Your task to perform on an android device: What's the weather today? Image 0: 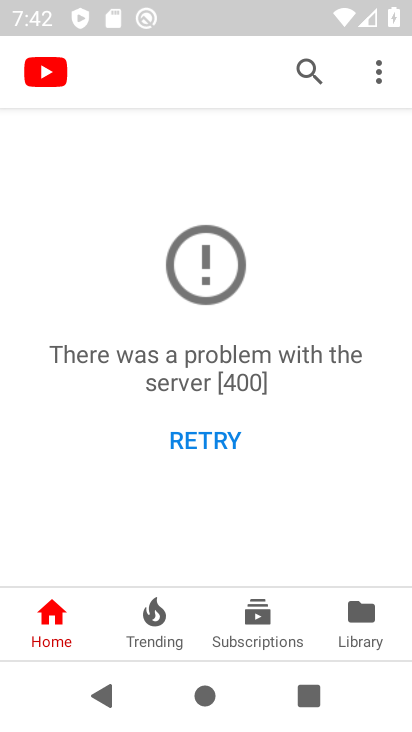
Step 0: drag from (251, 465) to (186, 104)
Your task to perform on an android device: What's the weather today? Image 1: 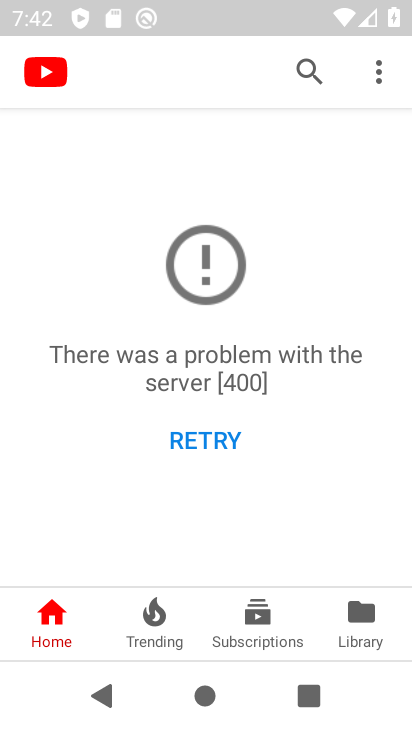
Step 1: press back button
Your task to perform on an android device: What's the weather today? Image 2: 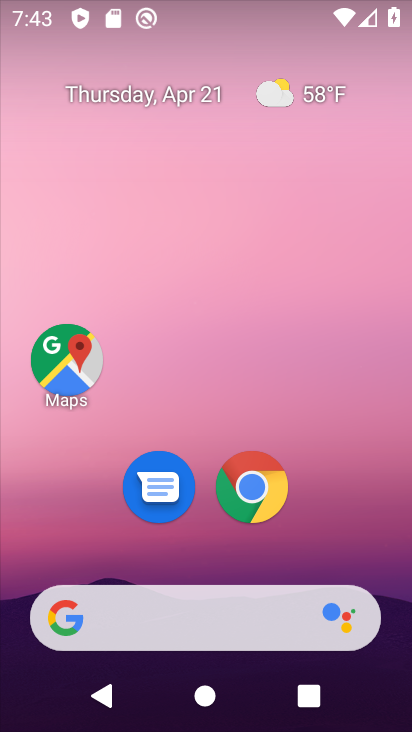
Step 2: drag from (361, 500) to (151, 17)
Your task to perform on an android device: What's the weather today? Image 3: 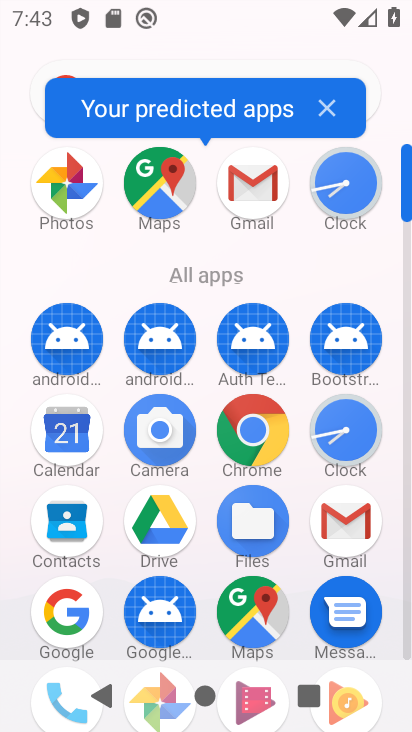
Step 3: click (328, 108)
Your task to perform on an android device: What's the weather today? Image 4: 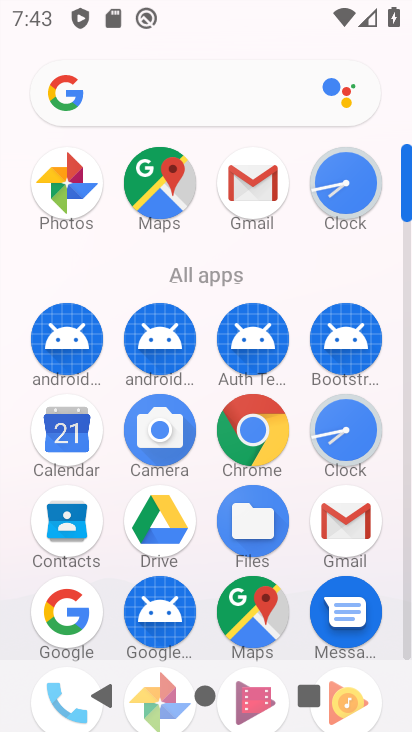
Step 4: click (169, 87)
Your task to perform on an android device: What's the weather today? Image 5: 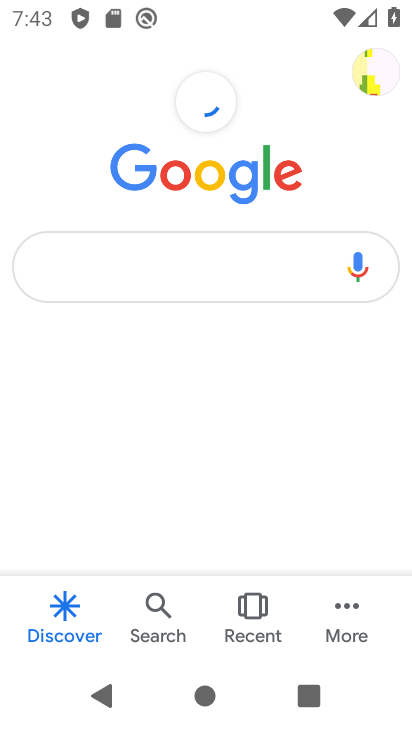
Step 5: click (168, 248)
Your task to perform on an android device: What's the weather today? Image 6: 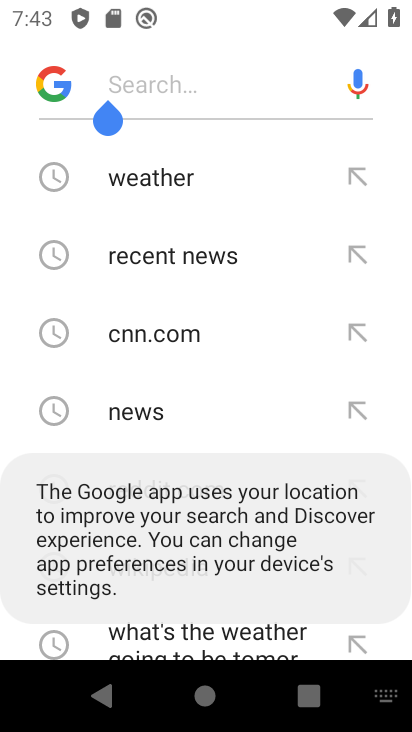
Step 6: click (153, 160)
Your task to perform on an android device: What's the weather today? Image 7: 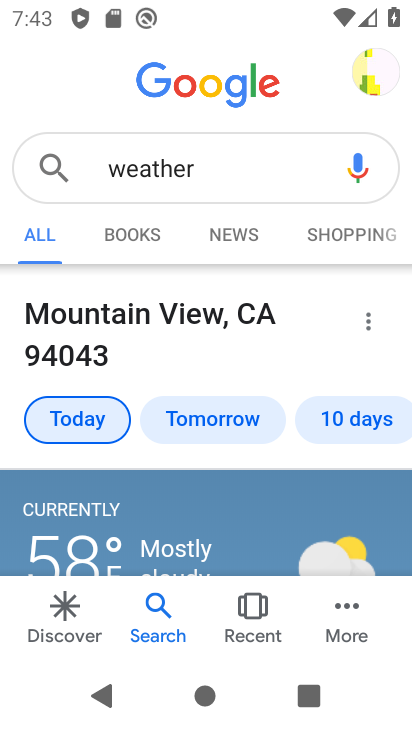
Step 7: task complete